Your task to perform on an android device: Open the web browser Image 0: 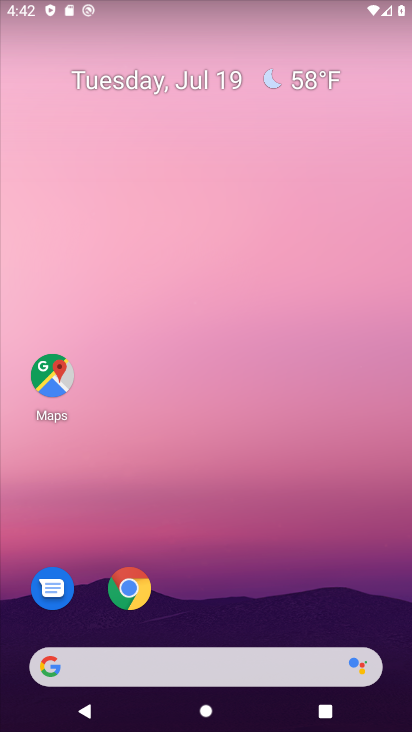
Step 0: drag from (259, 594) to (241, 108)
Your task to perform on an android device: Open the web browser Image 1: 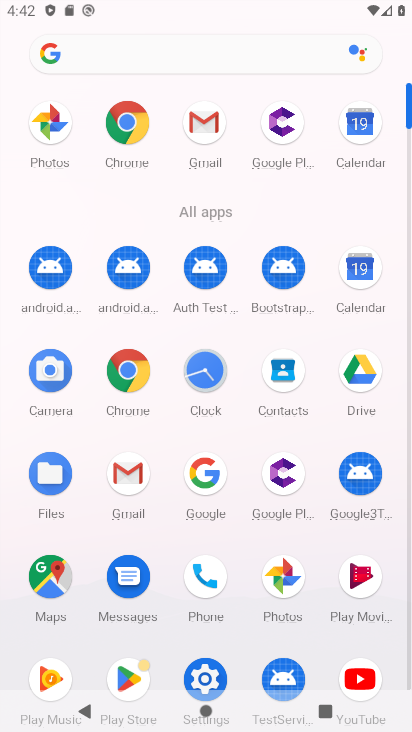
Step 1: click (126, 369)
Your task to perform on an android device: Open the web browser Image 2: 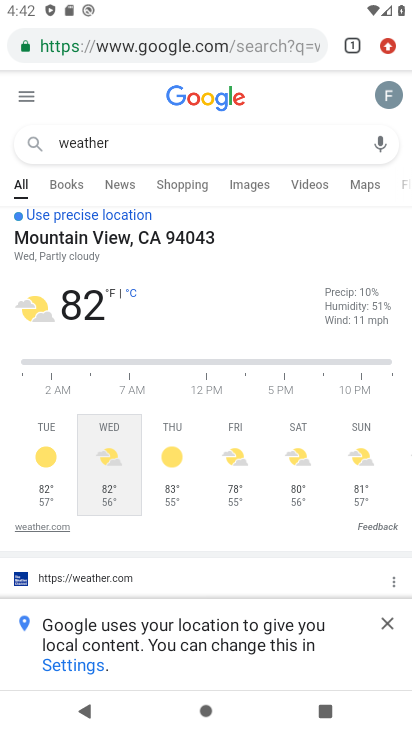
Step 2: task complete